Your task to perform on an android device: Show me productivity apps on the Play Store Image 0: 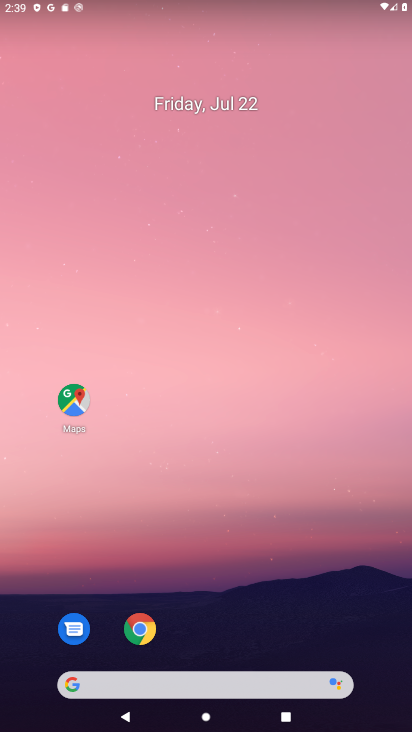
Step 0: drag from (221, 579) to (217, 111)
Your task to perform on an android device: Show me productivity apps on the Play Store Image 1: 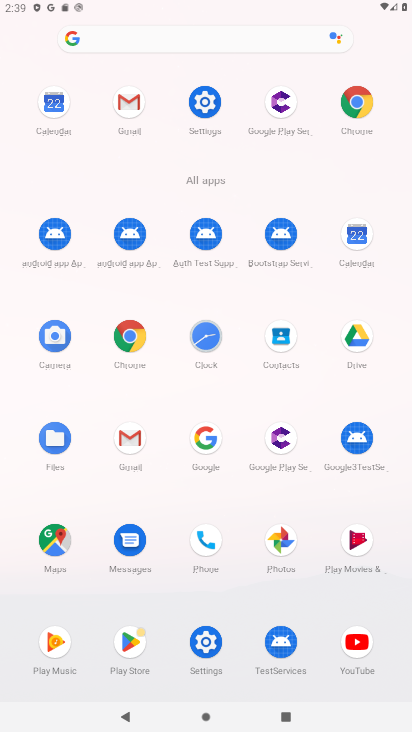
Step 1: click (130, 637)
Your task to perform on an android device: Show me productivity apps on the Play Store Image 2: 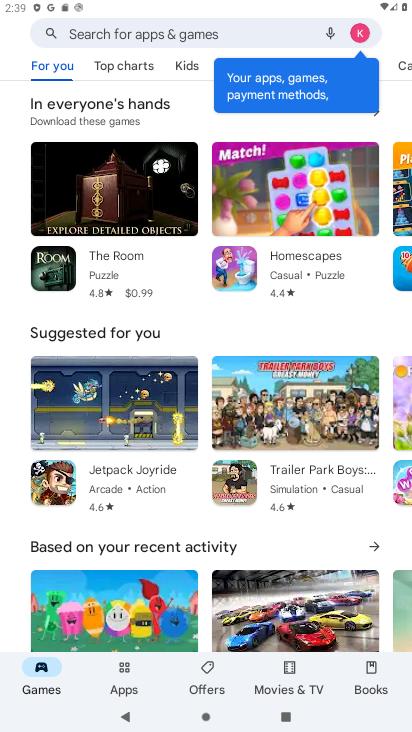
Step 2: click (120, 672)
Your task to perform on an android device: Show me productivity apps on the Play Store Image 3: 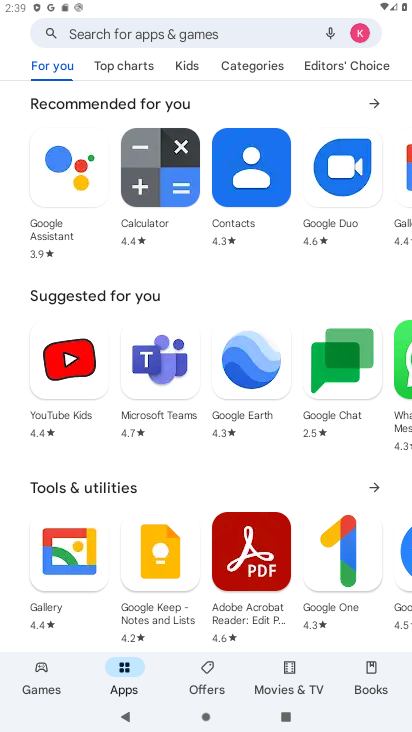
Step 3: task complete